Your task to perform on an android device: Open Wikipedia Image 0: 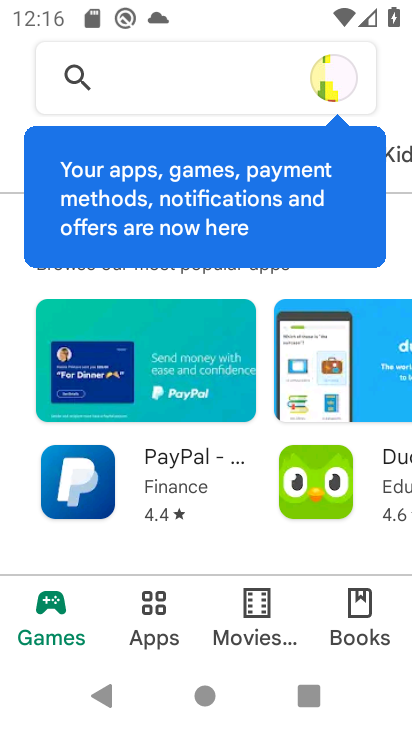
Step 0: press back button
Your task to perform on an android device: Open Wikipedia Image 1: 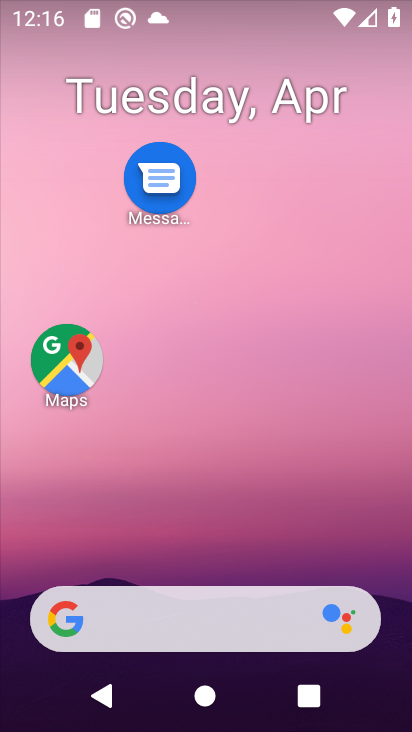
Step 1: drag from (206, 727) to (220, 14)
Your task to perform on an android device: Open Wikipedia Image 2: 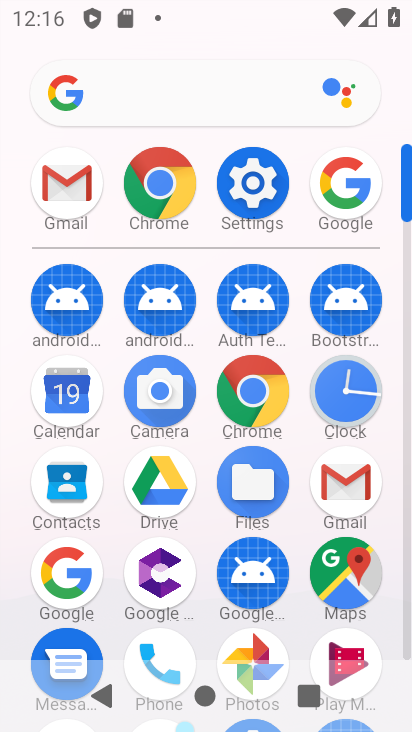
Step 2: click (164, 187)
Your task to perform on an android device: Open Wikipedia Image 3: 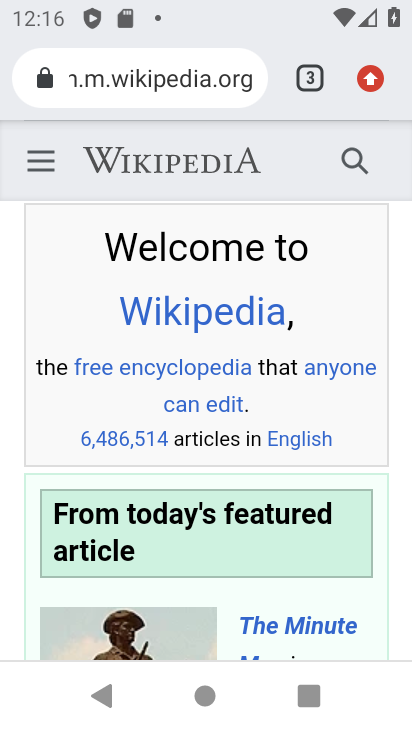
Step 3: task complete